Your task to perform on an android device: change the clock display to analog Image 0: 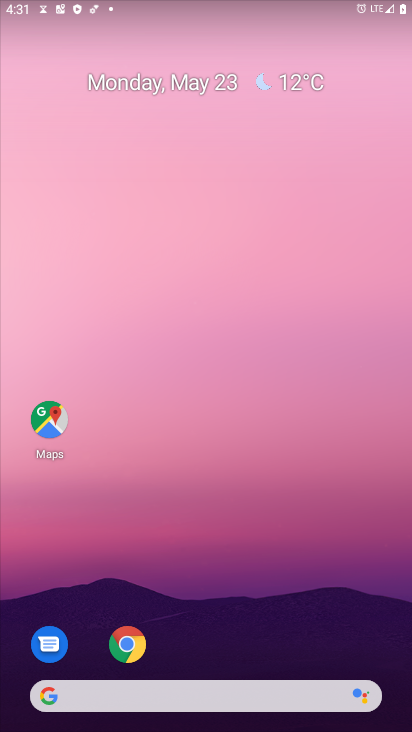
Step 0: drag from (284, 650) to (233, 56)
Your task to perform on an android device: change the clock display to analog Image 1: 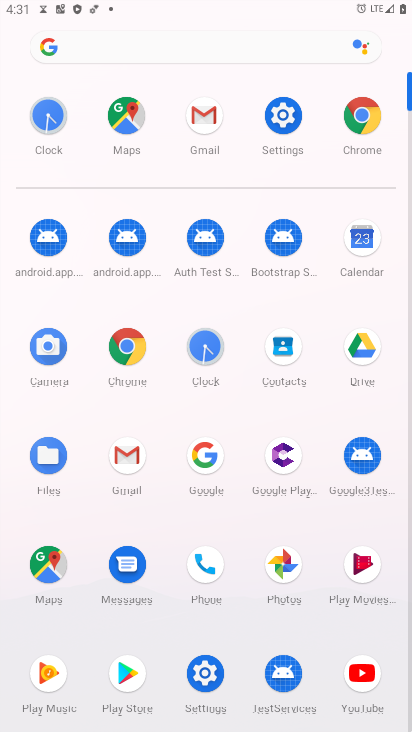
Step 1: click (44, 134)
Your task to perform on an android device: change the clock display to analog Image 2: 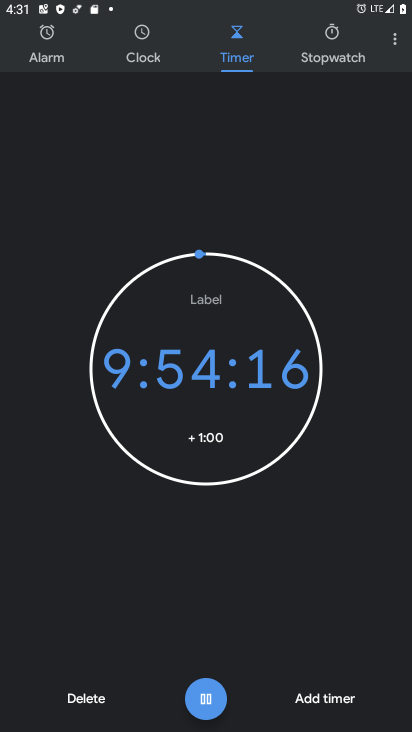
Step 2: click (398, 40)
Your task to perform on an android device: change the clock display to analog Image 3: 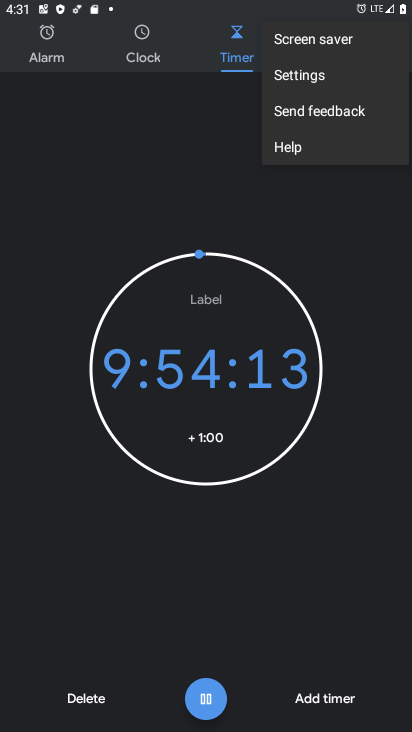
Step 3: click (327, 78)
Your task to perform on an android device: change the clock display to analog Image 4: 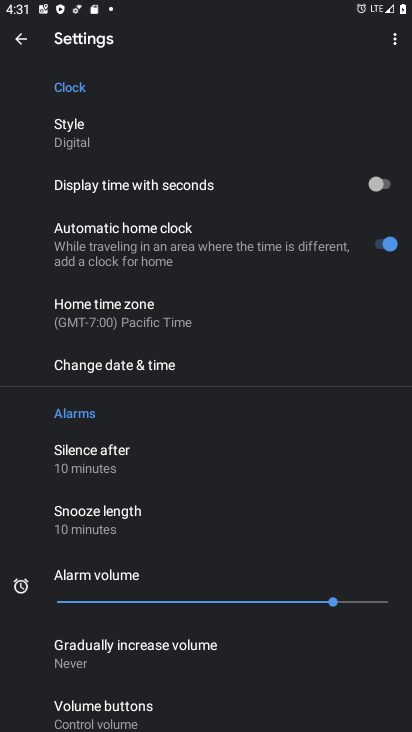
Step 4: click (185, 130)
Your task to perform on an android device: change the clock display to analog Image 5: 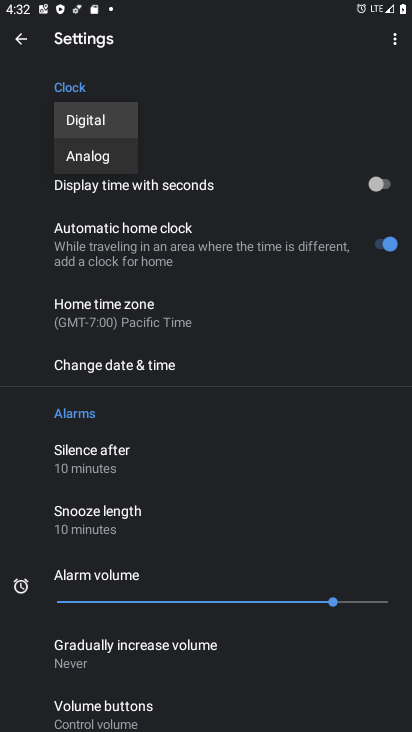
Step 5: click (121, 163)
Your task to perform on an android device: change the clock display to analog Image 6: 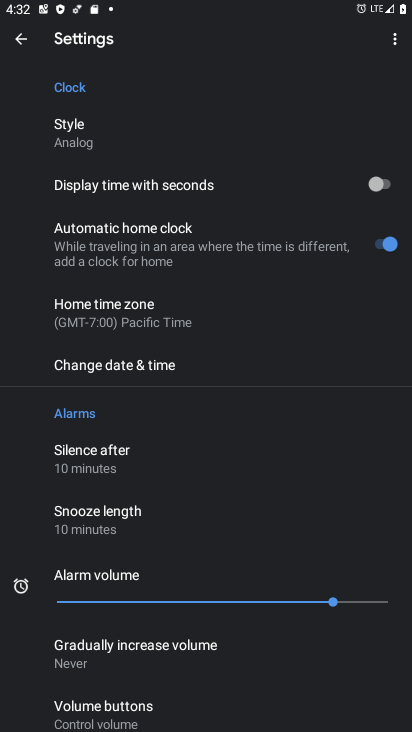
Step 6: task complete